Your task to perform on an android device: Go to eBay Image 0: 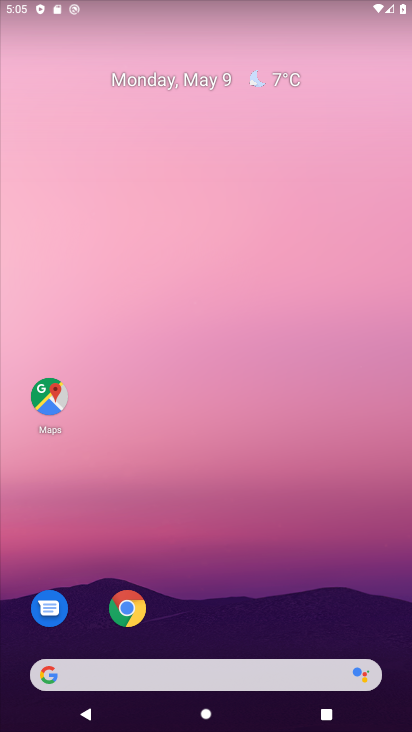
Step 0: click (137, 603)
Your task to perform on an android device: Go to eBay Image 1: 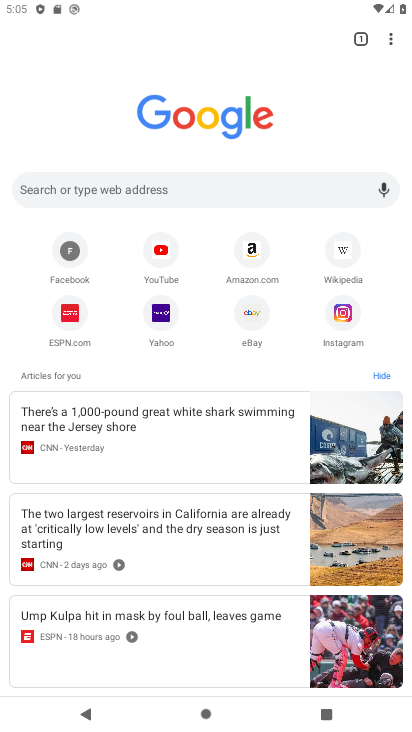
Step 1: click (144, 193)
Your task to perform on an android device: Go to eBay Image 2: 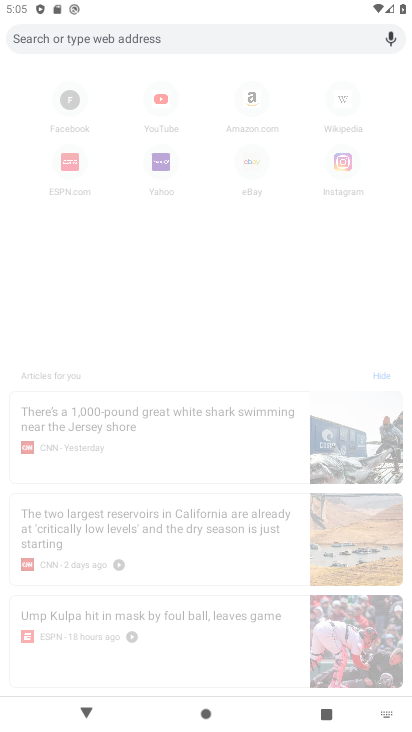
Step 2: click (243, 171)
Your task to perform on an android device: Go to eBay Image 3: 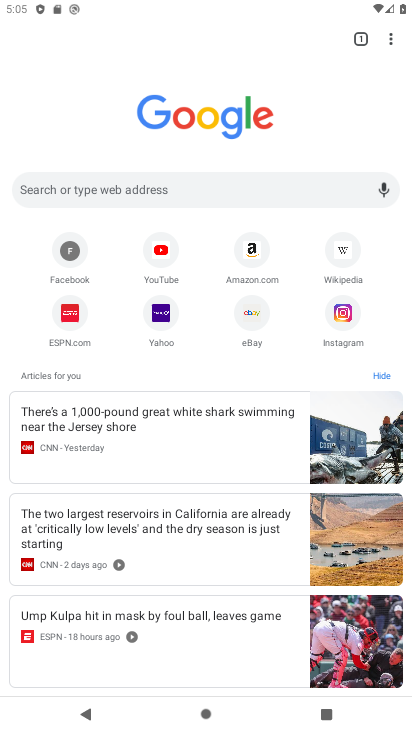
Step 3: click (256, 313)
Your task to perform on an android device: Go to eBay Image 4: 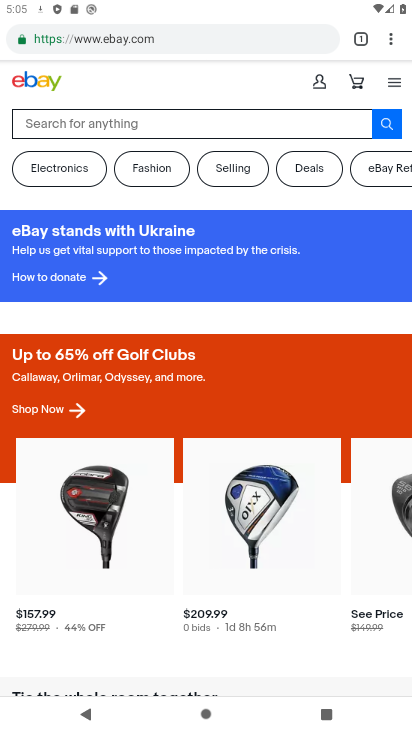
Step 4: task complete